Your task to perform on an android device: Go to Wikipedia Image 0: 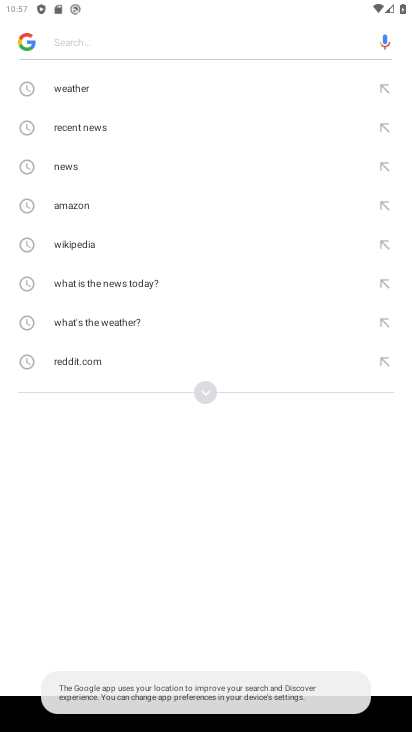
Step 0: press home button
Your task to perform on an android device: Go to Wikipedia Image 1: 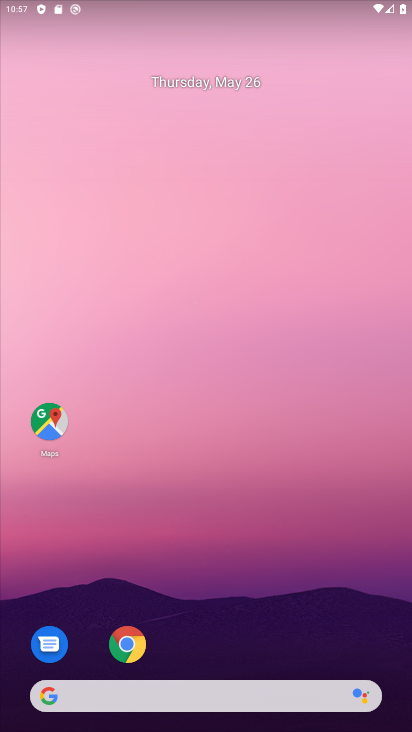
Step 1: click (122, 644)
Your task to perform on an android device: Go to Wikipedia Image 2: 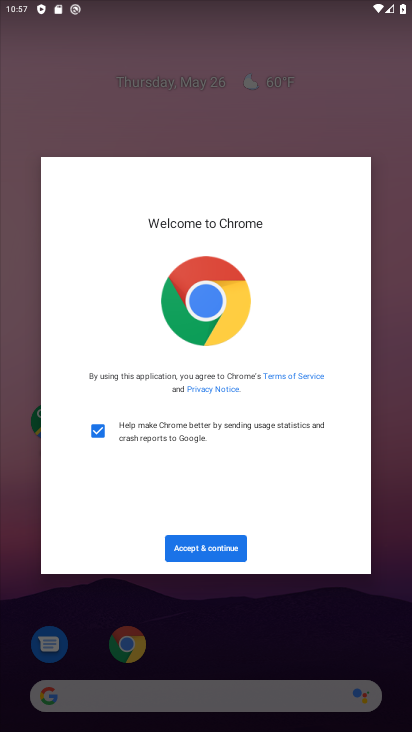
Step 2: click (222, 552)
Your task to perform on an android device: Go to Wikipedia Image 3: 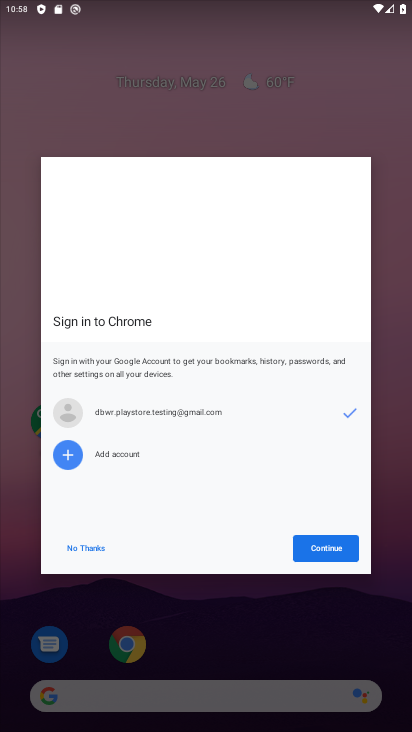
Step 3: click (349, 545)
Your task to perform on an android device: Go to Wikipedia Image 4: 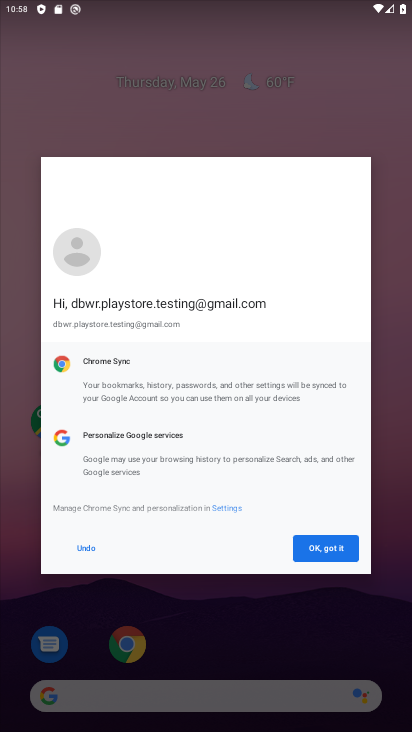
Step 4: click (348, 548)
Your task to perform on an android device: Go to Wikipedia Image 5: 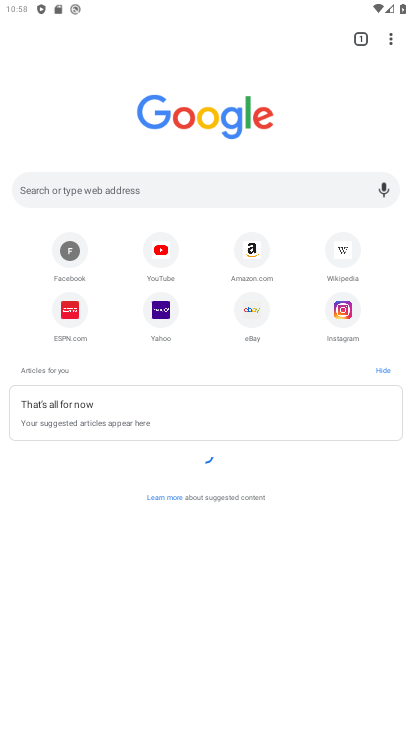
Step 5: click (348, 263)
Your task to perform on an android device: Go to Wikipedia Image 6: 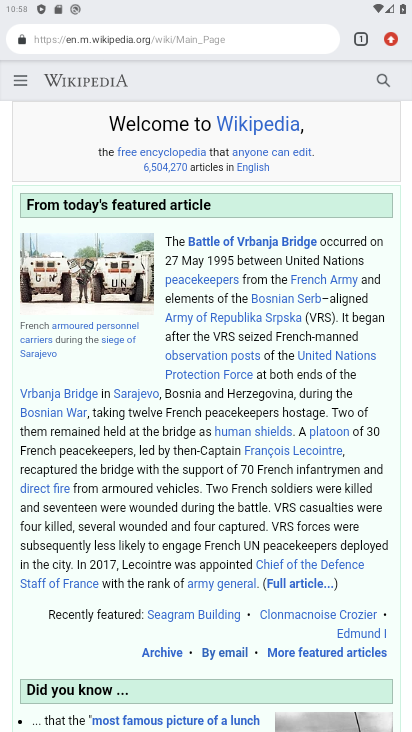
Step 6: task complete